Your task to perform on an android device: open app "Etsy: Buy & Sell Unique Items" (install if not already installed) Image 0: 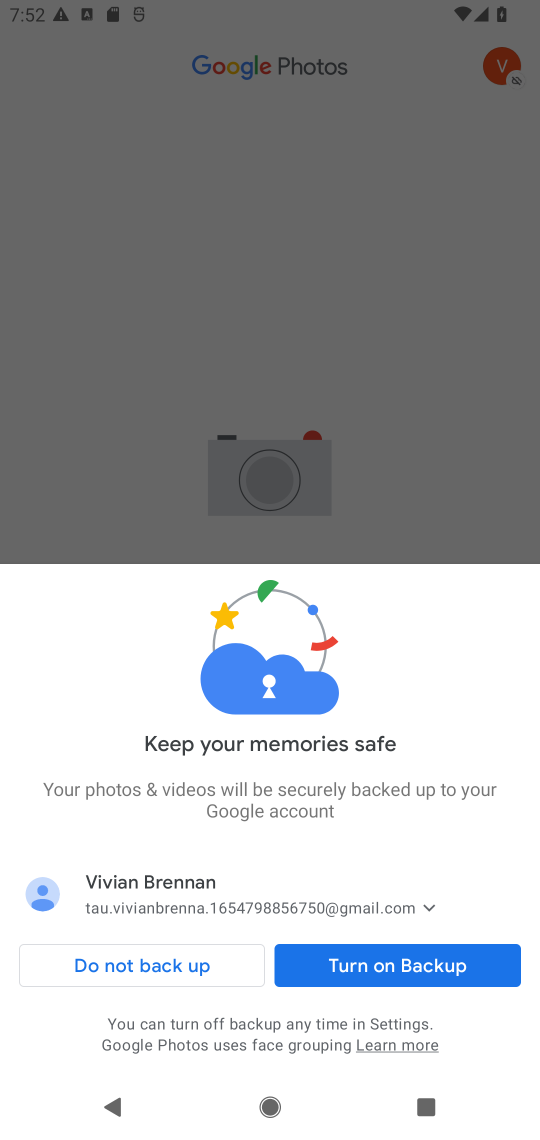
Step 0: press home button
Your task to perform on an android device: open app "Etsy: Buy & Sell Unique Items" (install if not already installed) Image 1: 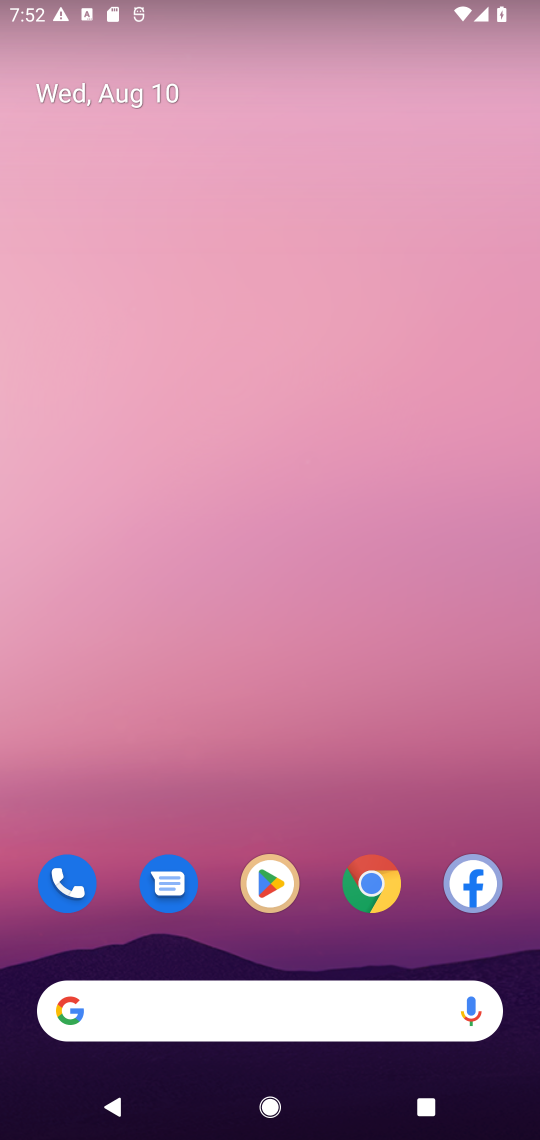
Step 1: drag from (306, 850) to (293, 99)
Your task to perform on an android device: open app "Etsy: Buy & Sell Unique Items" (install if not already installed) Image 2: 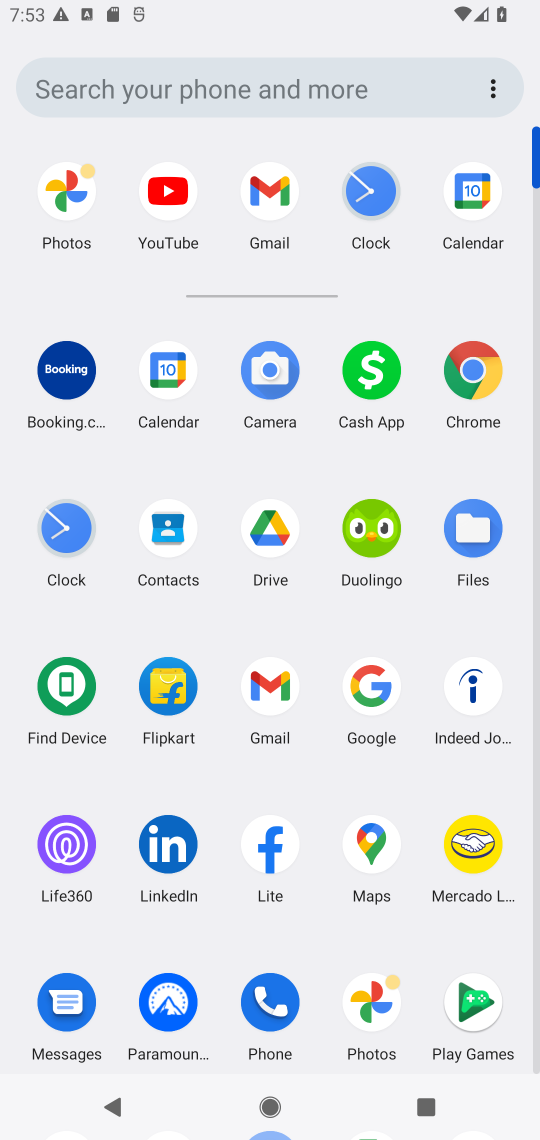
Step 2: drag from (337, 884) to (337, 402)
Your task to perform on an android device: open app "Etsy: Buy & Sell Unique Items" (install if not already installed) Image 3: 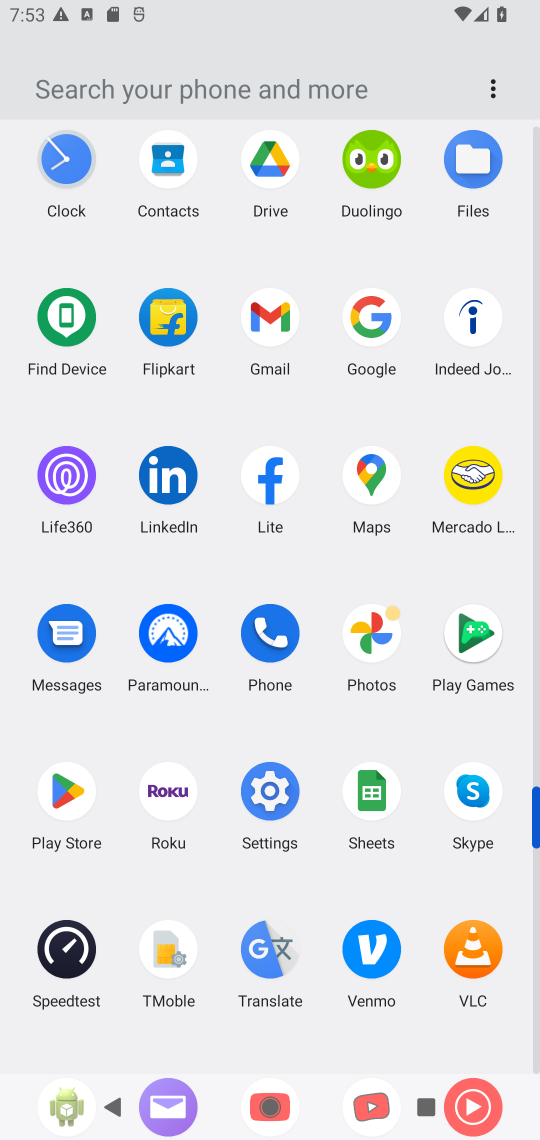
Step 3: click (64, 791)
Your task to perform on an android device: open app "Etsy: Buy & Sell Unique Items" (install if not already installed) Image 4: 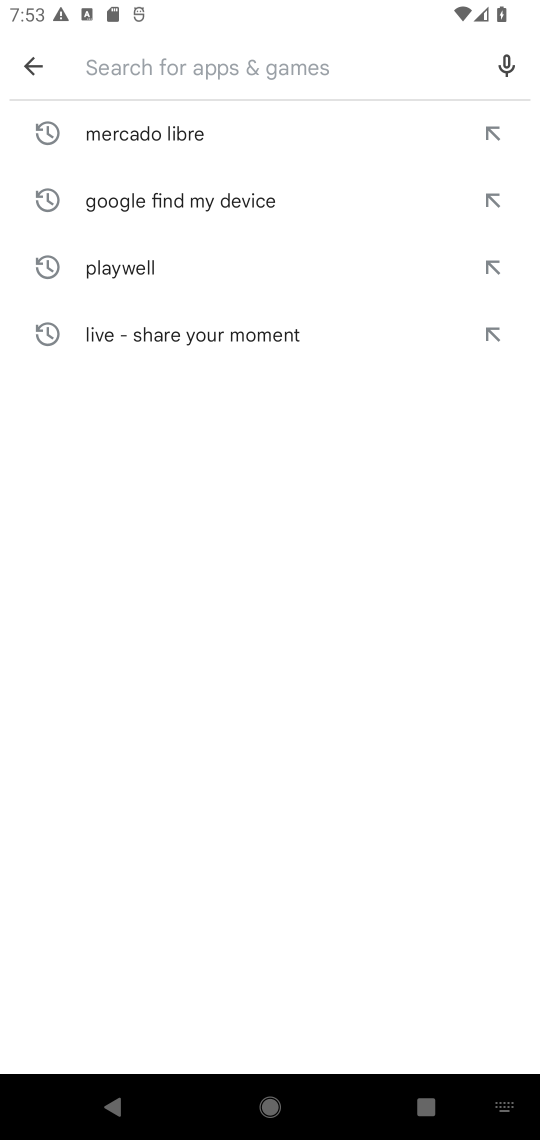
Step 4: type "Etsy: Buy & Sell Unique Items"
Your task to perform on an android device: open app "Etsy: Buy & Sell Unique Items" (install if not already installed) Image 5: 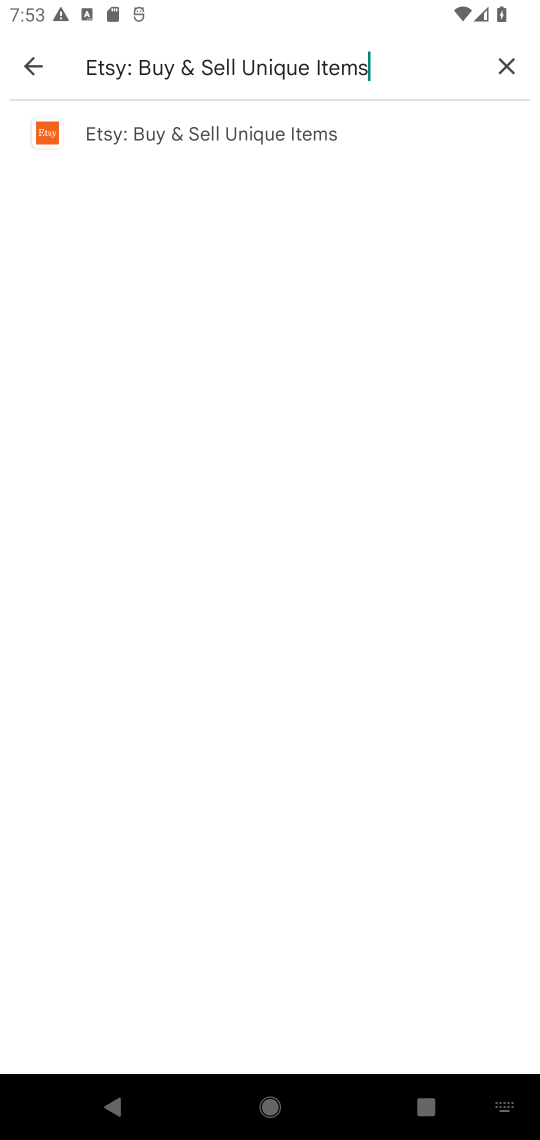
Step 5: click (208, 136)
Your task to perform on an android device: open app "Etsy: Buy & Sell Unique Items" (install if not already installed) Image 6: 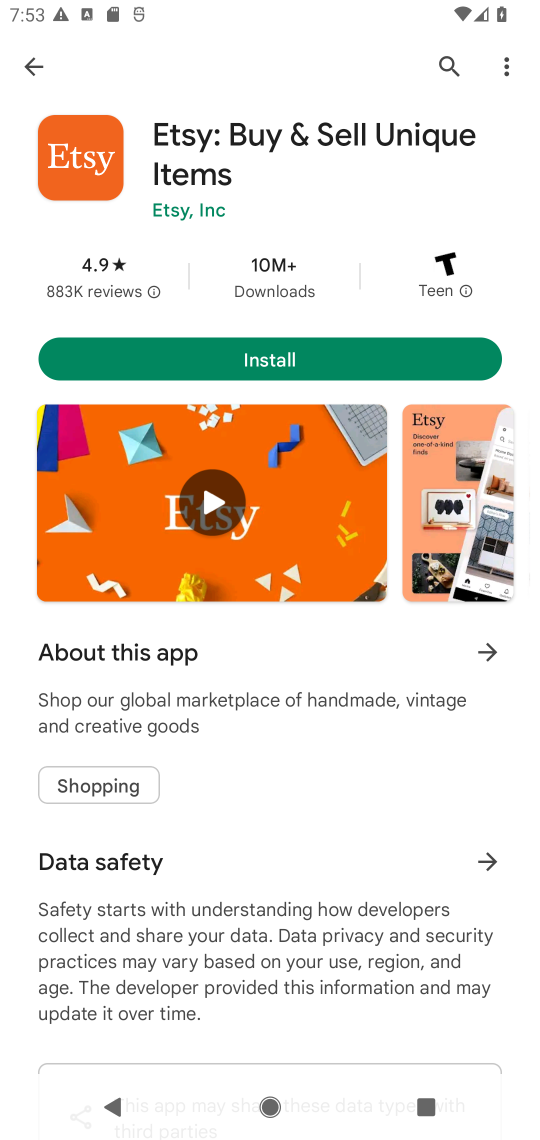
Step 6: click (308, 369)
Your task to perform on an android device: open app "Etsy: Buy & Sell Unique Items" (install if not already installed) Image 7: 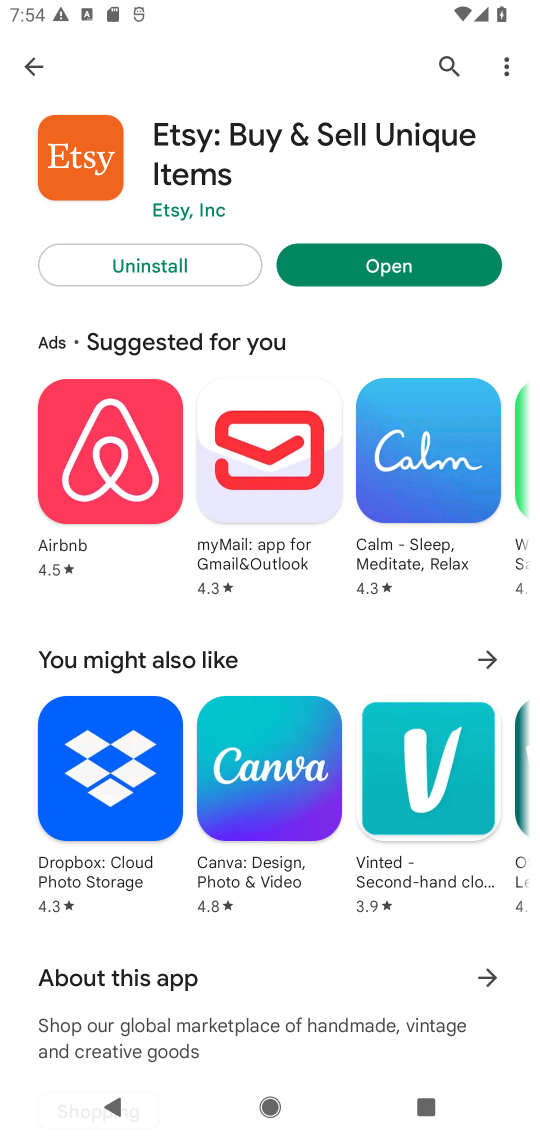
Step 7: click (401, 265)
Your task to perform on an android device: open app "Etsy: Buy & Sell Unique Items" (install if not already installed) Image 8: 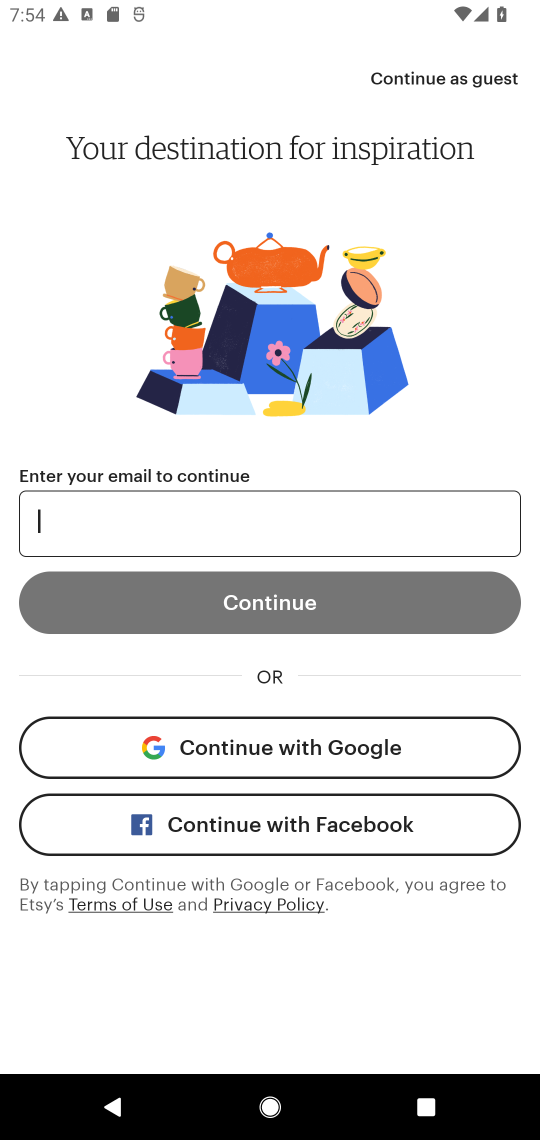
Step 8: task complete